Your task to perform on an android device: Open Youtube and go to "Your channel" Image 0: 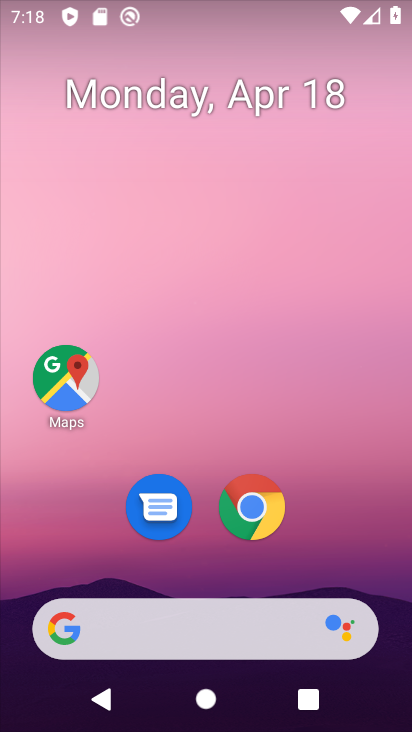
Step 0: drag from (2, 581) to (209, 317)
Your task to perform on an android device: Open Youtube and go to "Your channel" Image 1: 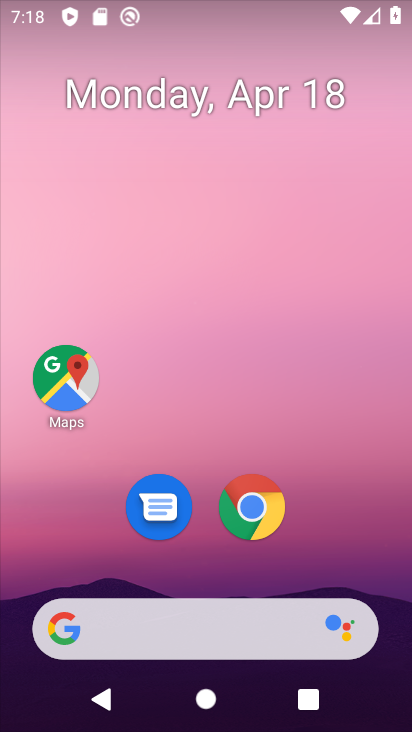
Step 1: drag from (2, 553) to (215, 87)
Your task to perform on an android device: Open Youtube and go to "Your channel" Image 2: 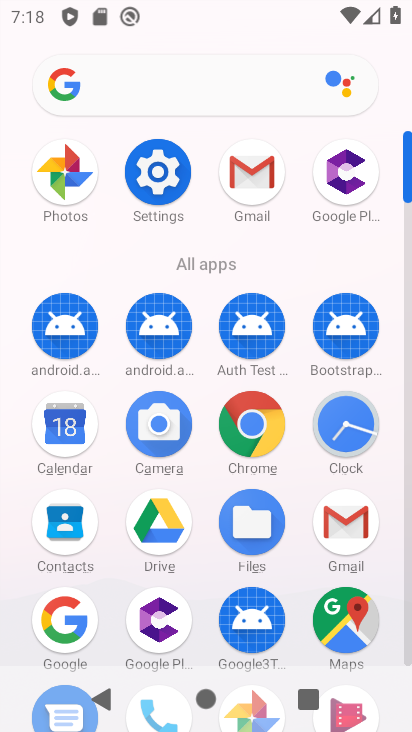
Step 2: click (408, 662)
Your task to perform on an android device: Open Youtube and go to "Your channel" Image 3: 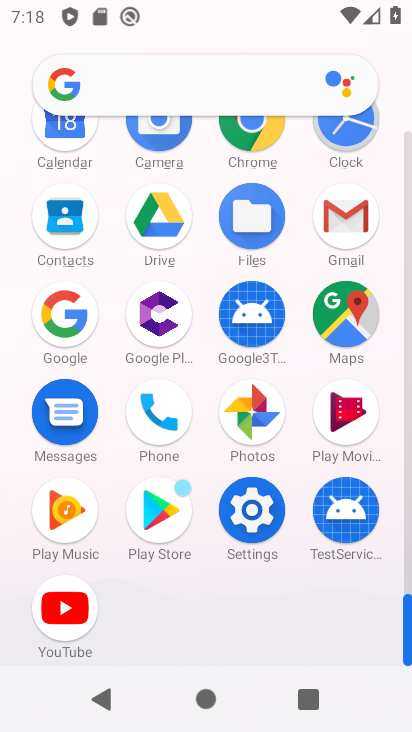
Step 3: click (59, 610)
Your task to perform on an android device: Open Youtube and go to "Your channel" Image 4: 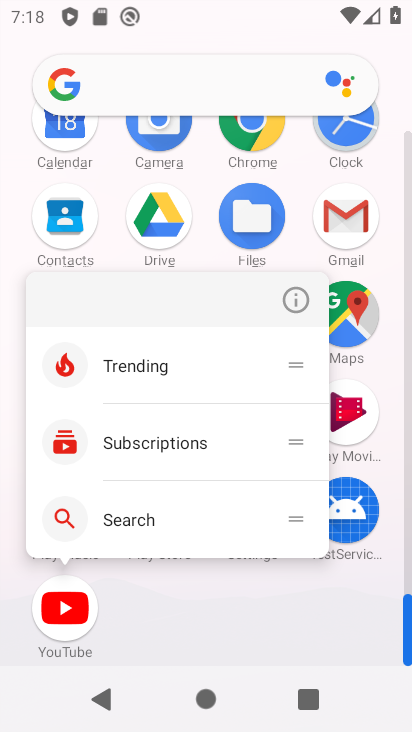
Step 4: click (59, 610)
Your task to perform on an android device: Open Youtube and go to "Your channel" Image 5: 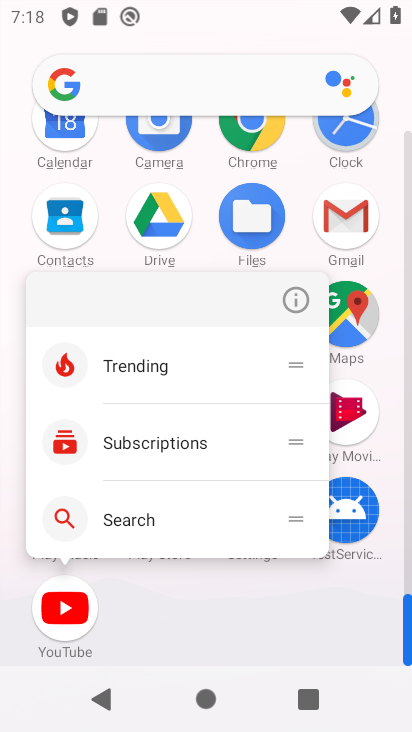
Step 5: click (47, 607)
Your task to perform on an android device: Open Youtube and go to "Your channel" Image 6: 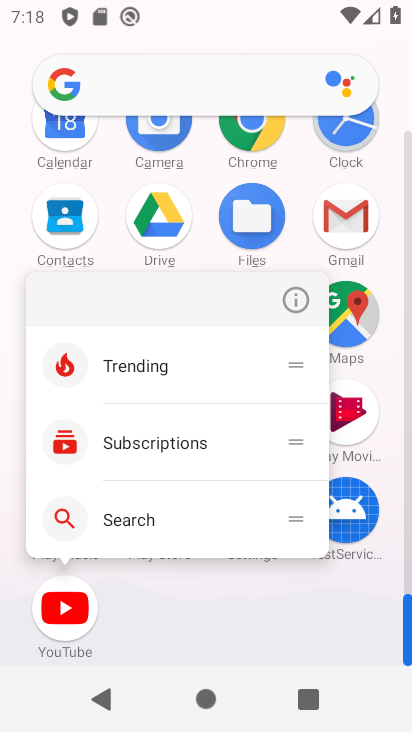
Step 6: click (47, 607)
Your task to perform on an android device: Open Youtube and go to "Your channel" Image 7: 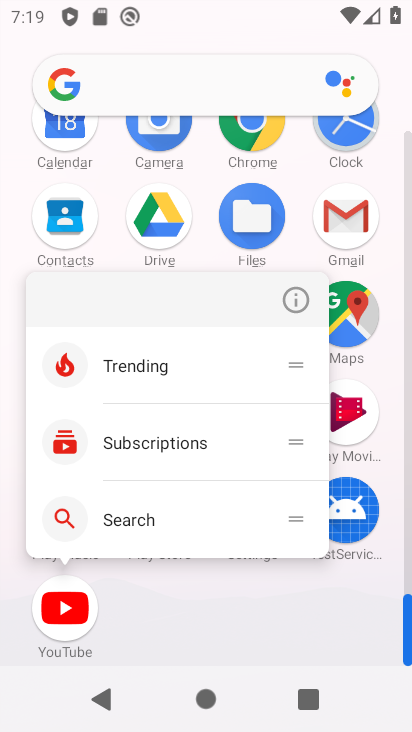
Step 7: click (65, 592)
Your task to perform on an android device: Open Youtube and go to "Your channel" Image 8: 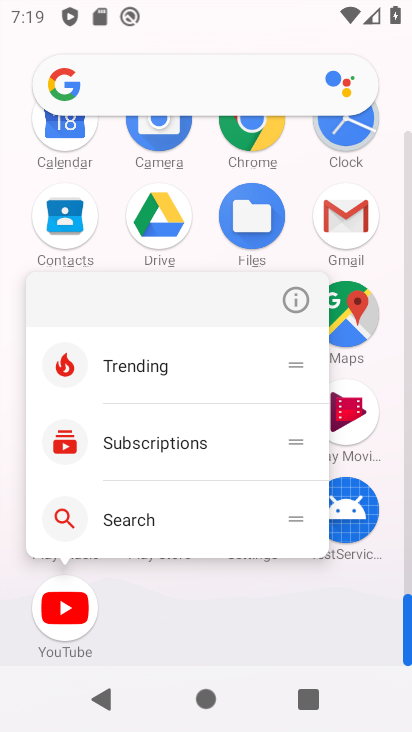
Step 8: click (65, 592)
Your task to perform on an android device: Open Youtube and go to "Your channel" Image 9: 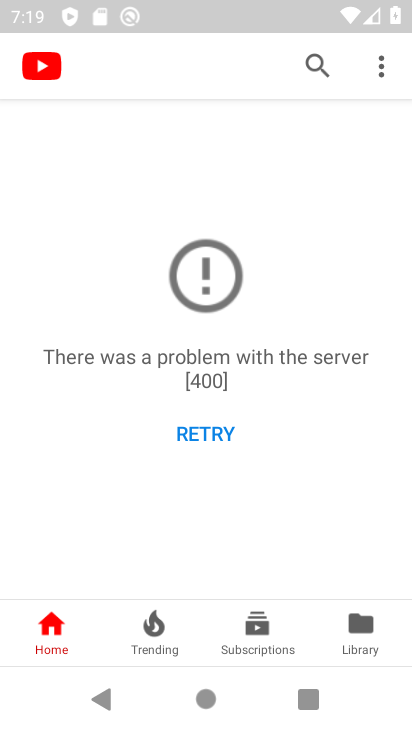
Step 9: click (215, 448)
Your task to perform on an android device: Open Youtube and go to "Your channel" Image 10: 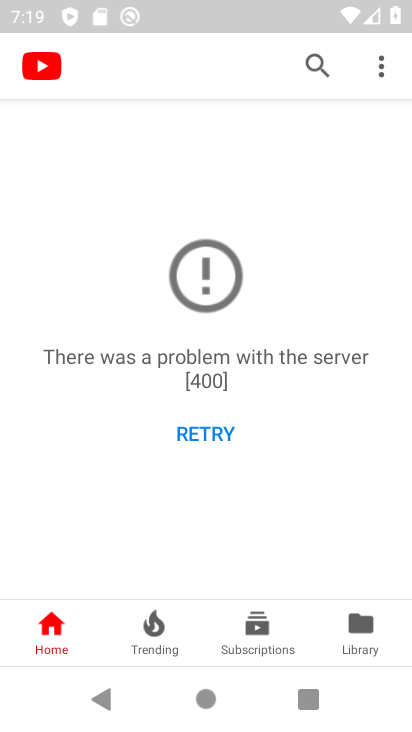
Step 10: click (214, 443)
Your task to perform on an android device: Open Youtube and go to "Your channel" Image 11: 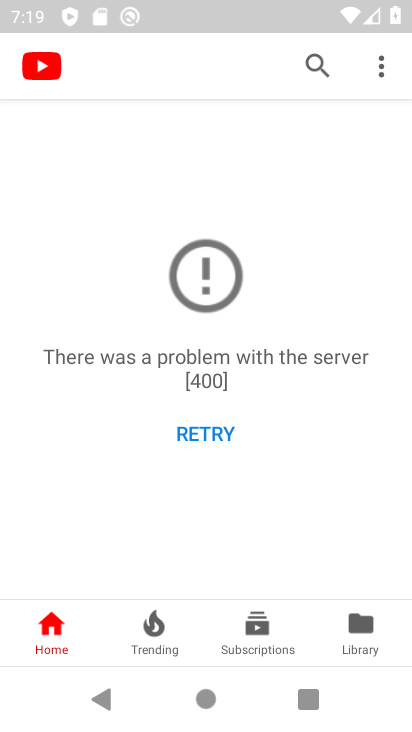
Step 11: click (214, 443)
Your task to perform on an android device: Open Youtube and go to "Your channel" Image 12: 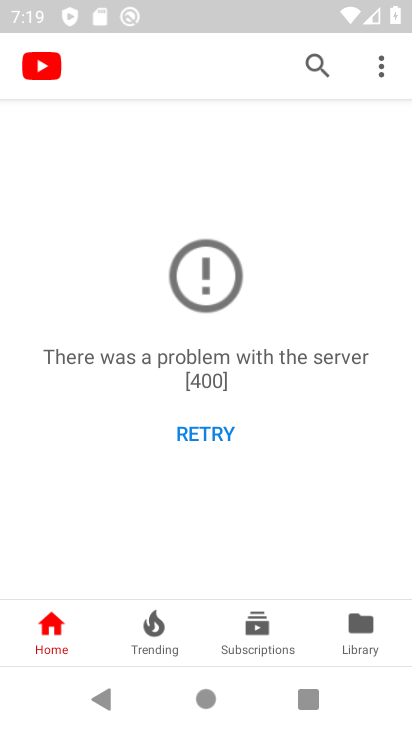
Step 12: task complete